Your task to perform on an android device: What's the weather today? Image 0: 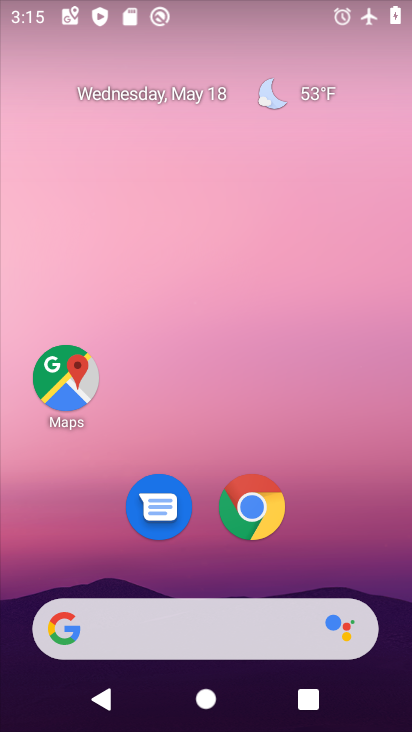
Step 0: drag from (338, 544) to (313, 96)
Your task to perform on an android device: What's the weather today? Image 1: 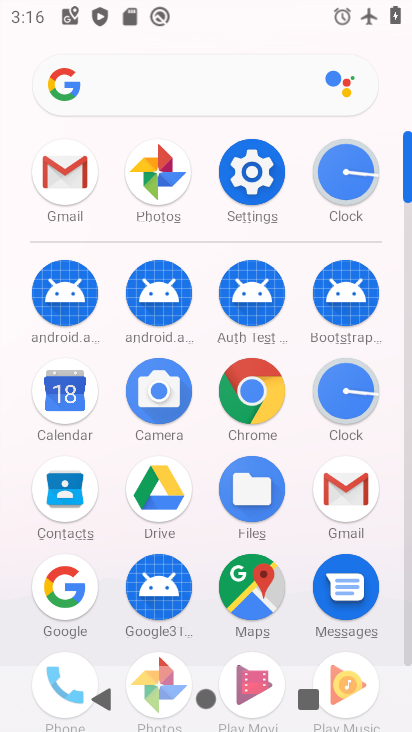
Step 1: click (60, 587)
Your task to perform on an android device: What's the weather today? Image 2: 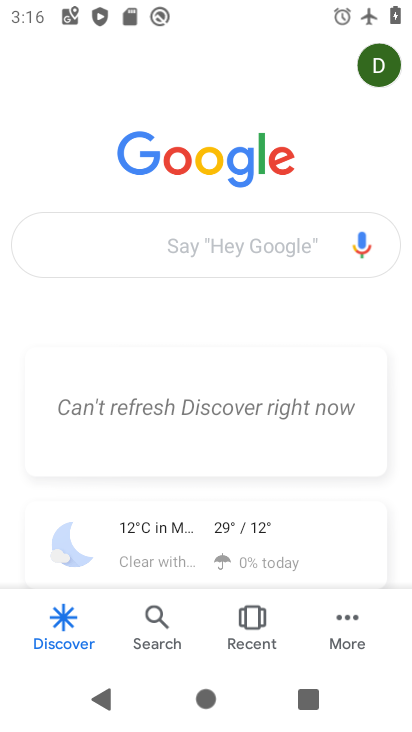
Step 2: click (208, 535)
Your task to perform on an android device: What's the weather today? Image 3: 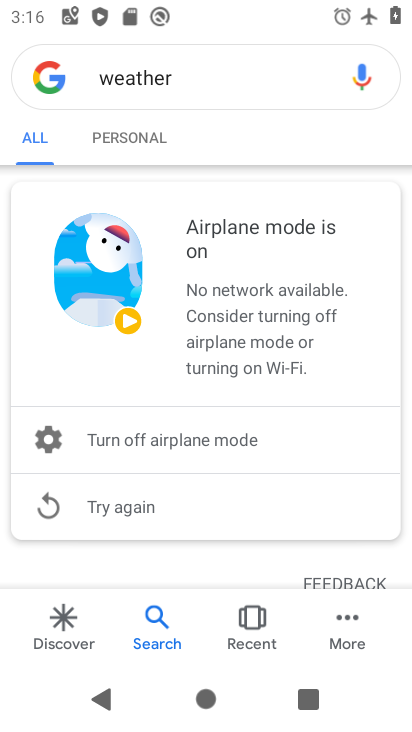
Step 3: task complete